Your task to perform on an android device: Open internet settings Image 0: 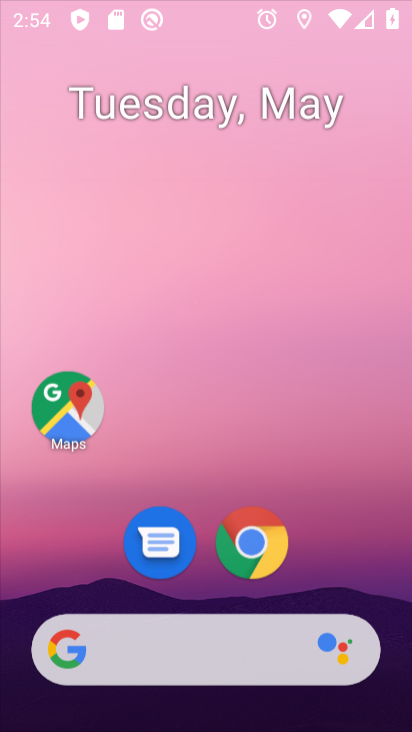
Step 0: drag from (222, 160) to (224, 114)
Your task to perform on an android device: Open internet settings Image 1: 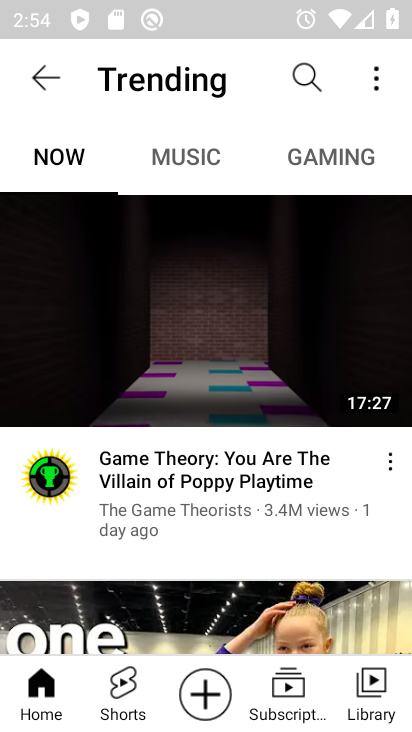
Step 1: press home button
Your task to perform on an android device: Open internet settings Image 2: 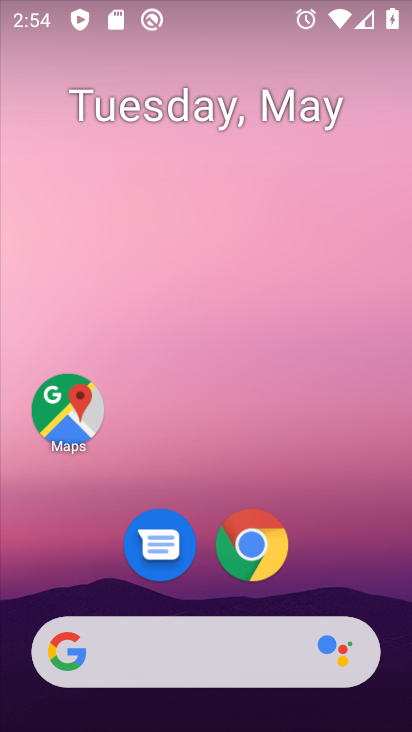
Step 2: drag from (271, 649) to (248, 127)
Your task to perform on an android device: Open internet settings Image 3: 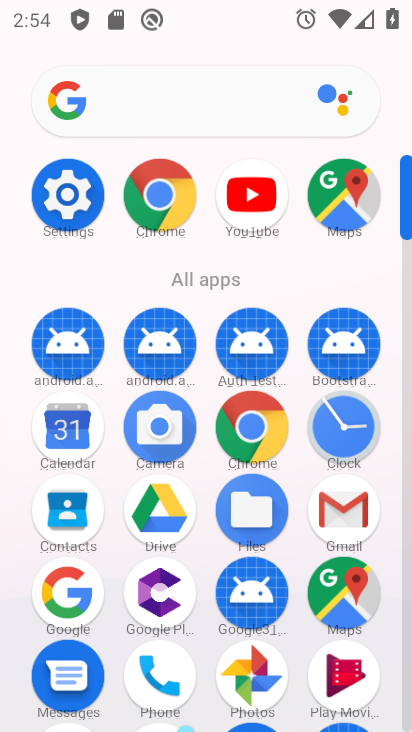
Step 3: drag from (73, 205) to (142, 205)
Your task to perform on an android device: Open internet settings Image 4: 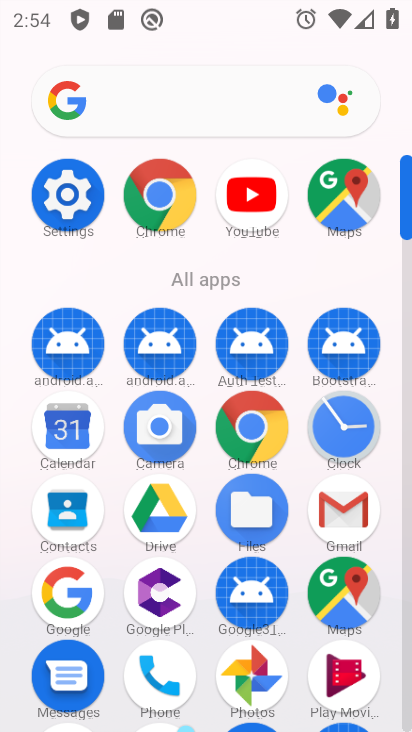
Step 4: click (78, 207)
Your task to perform on an android device: Open internet settings Image 5: 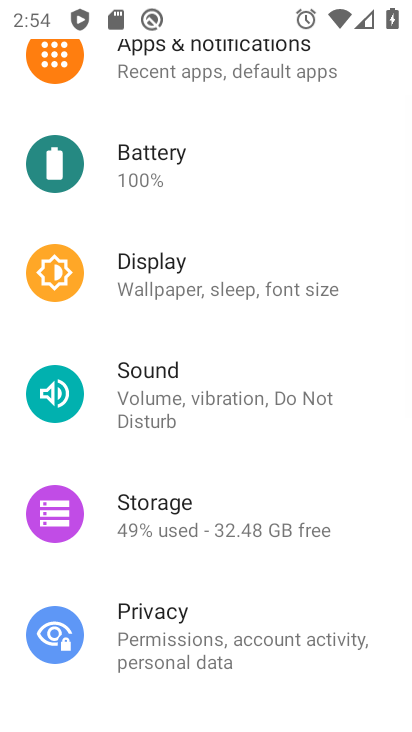
Step 5: drag from (197, 146) to (148, 551)
Your task to perform on an android device: Open internet settings Image 6: 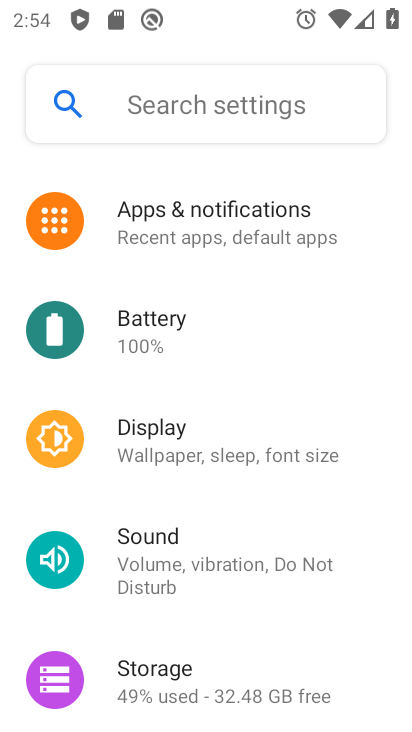
Step 6: click (207, 241)
Your task to perform on an android device: Open internet settings Image 7: 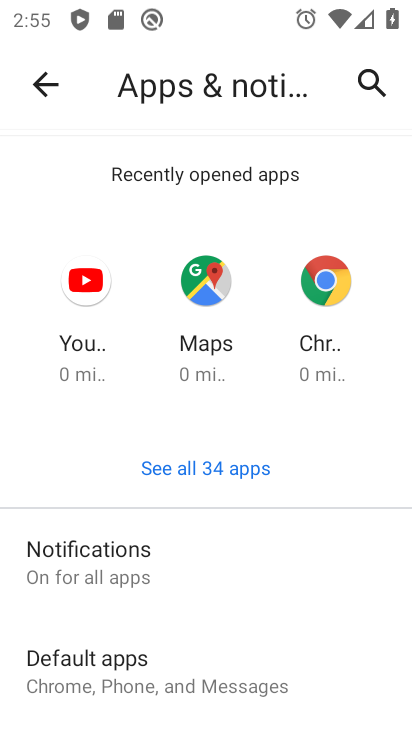
Step 7: task complete